Your task to perform on an android device: find which apps use the phone's location Image 0: 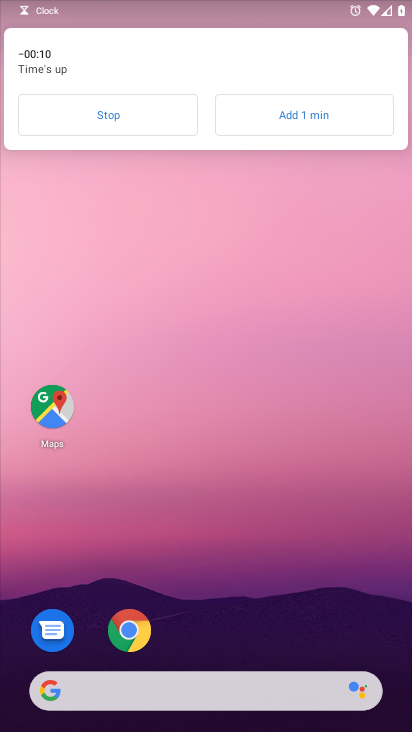
Step 0: drag from (194, 689) to (206, 129)
Your task to perform on an android device: find which apps use the phone's location Image 1: 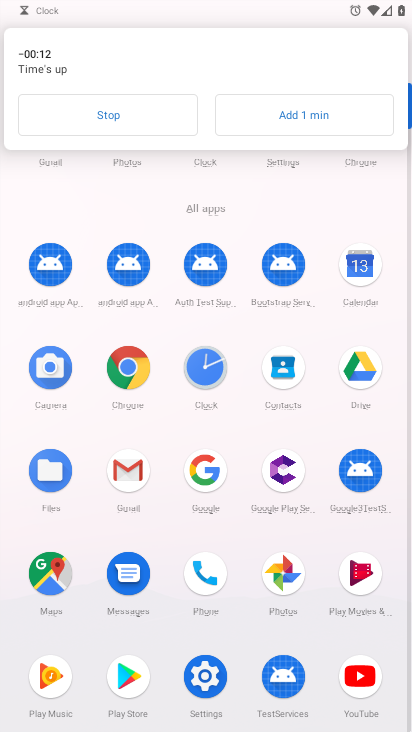
Step 1: click (149, 115)
Your task to perform on an android device: find which apps use the phone's location Image 2: 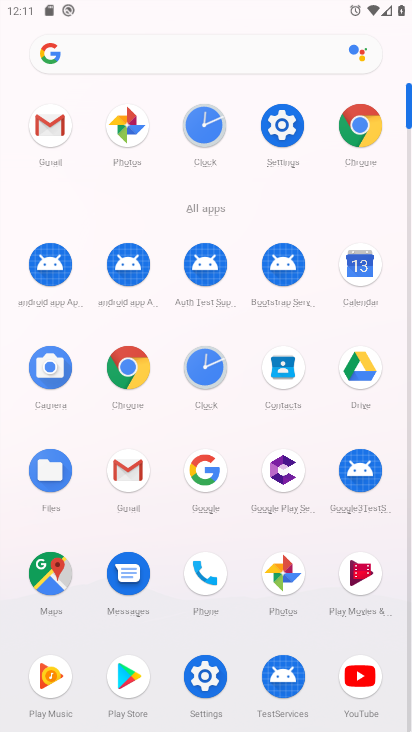
Step 2: click (196, 687)
Your task to perform on an android device: find which apps use the phone's location Image 3: 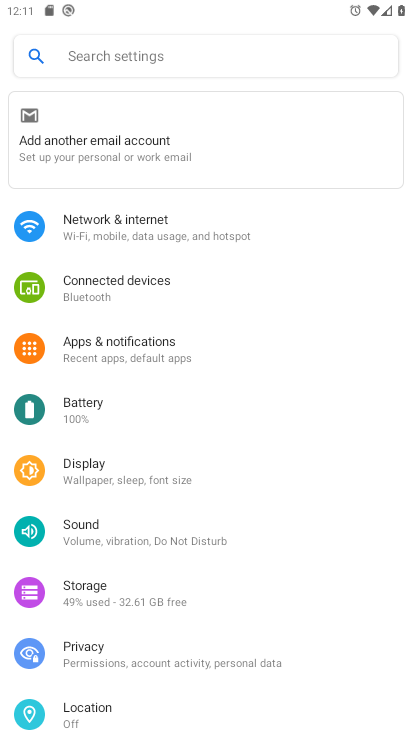
Step 3: click (79, 715)
Your task to perform on an android device: find which apps use the phone's location Image 4: 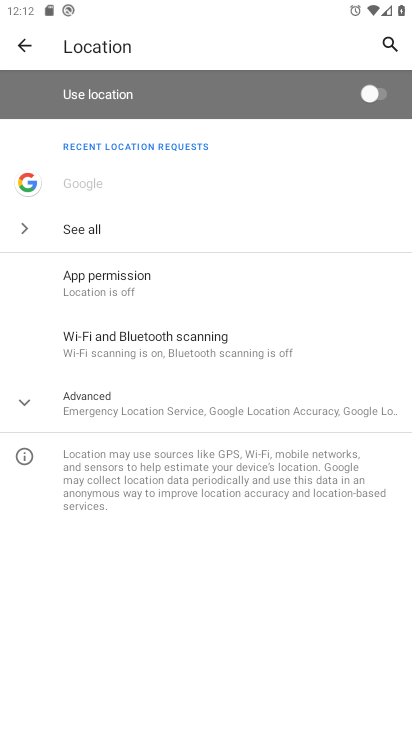
Step 4: click (131, 279)
Your task to perform on an android device: find which apps use the phone's location Image 5: 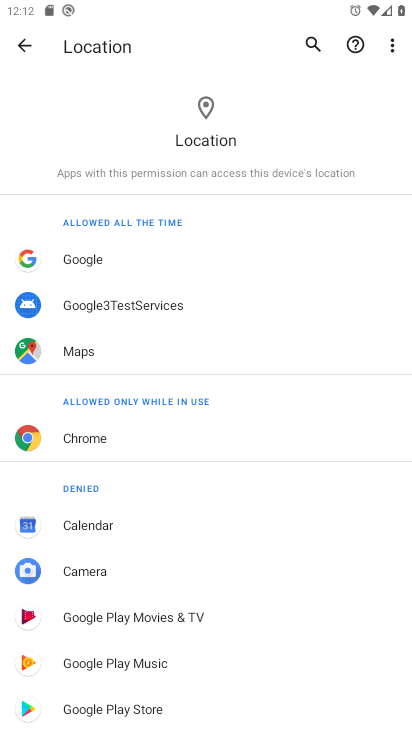
Step 5: task complete